Your task to perform on an android device: stop showing notifications on the lock screen Image 0: 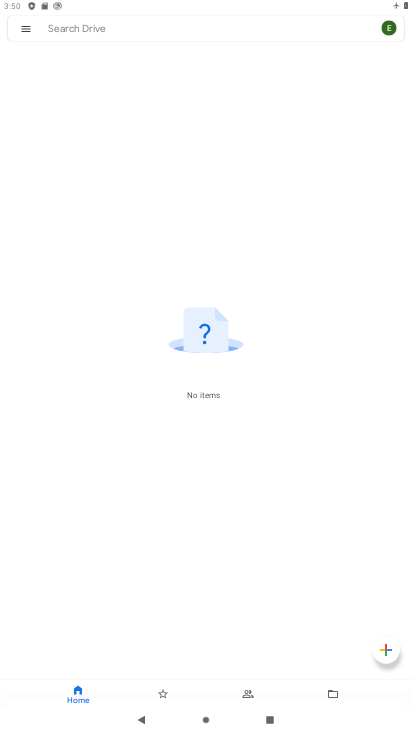
Step 0: press home button
Your task to perform on an android device: stop showing notifications on the lock screen Image 1: 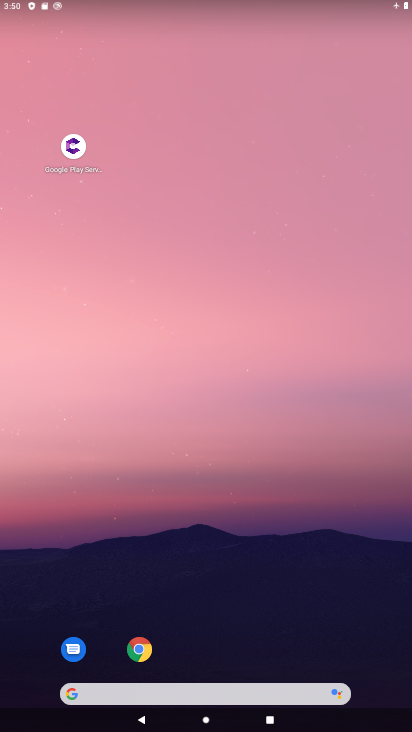
Step 1: drag from (274, 589) to (308, 8)
Your task to perform on an android device: stop showing notifications on the lock screen Image 2: 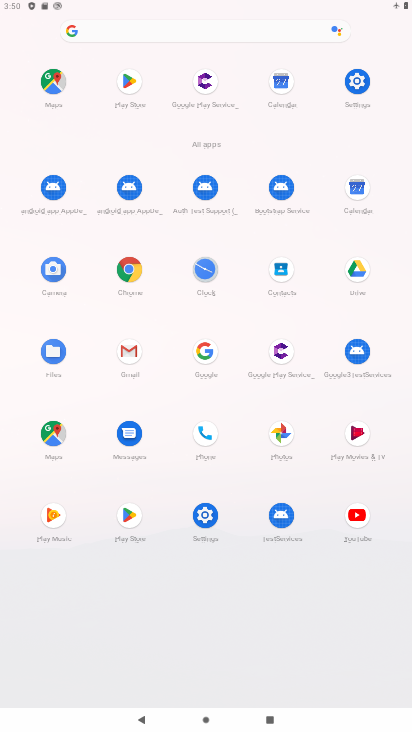
Step 2: click (362, 92)
Your task to perform on an android device: stop showing notifications on the lock screen Image 3: 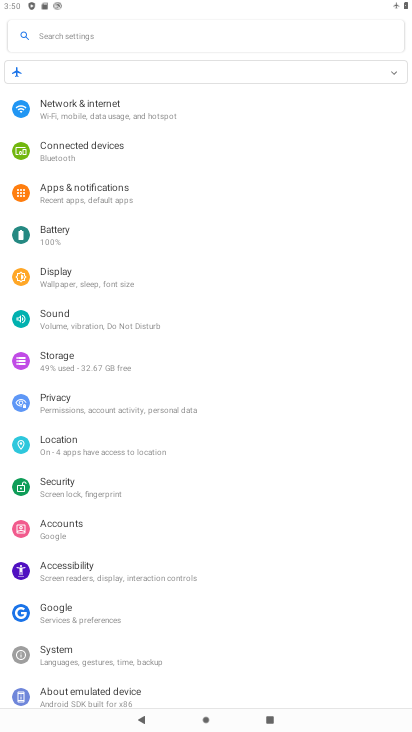
Step 3: click (139, 191)
Your task to perform on an android device: stop showing notifications on the lock screen Image 4: 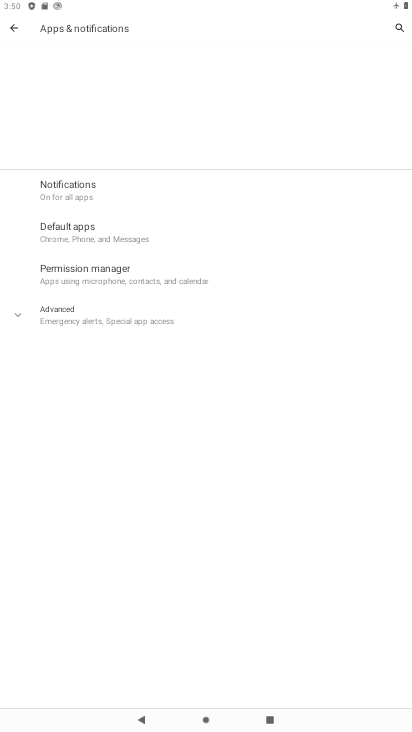
Step 4: click (135, 191)
Your task to perform on an android device: stop showing notifications on the lock screen Image 5: 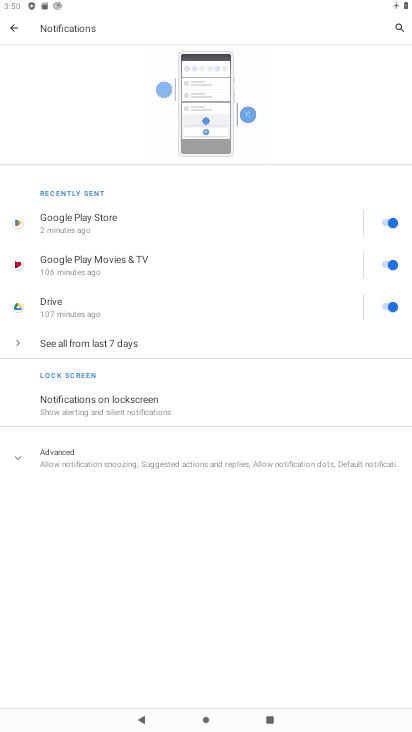
Step 5: click (151, 406)
Your task to perform on an android device: stop showing notifications on the lock screen Image 6: 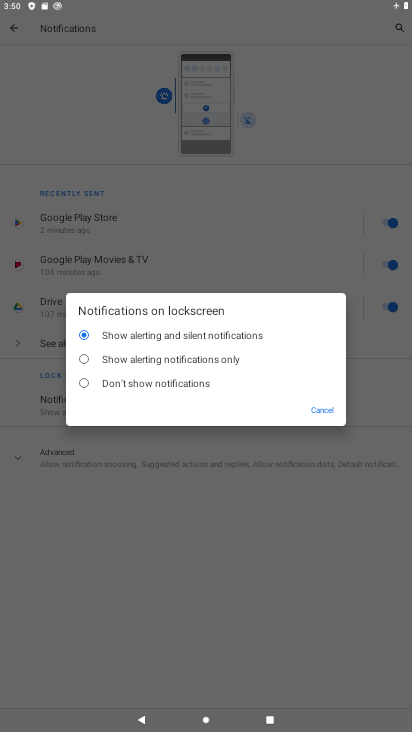
Step 6: click (197, 386)
Your task to perform on an android device: stop showing notifications on the lock screen Image 7: 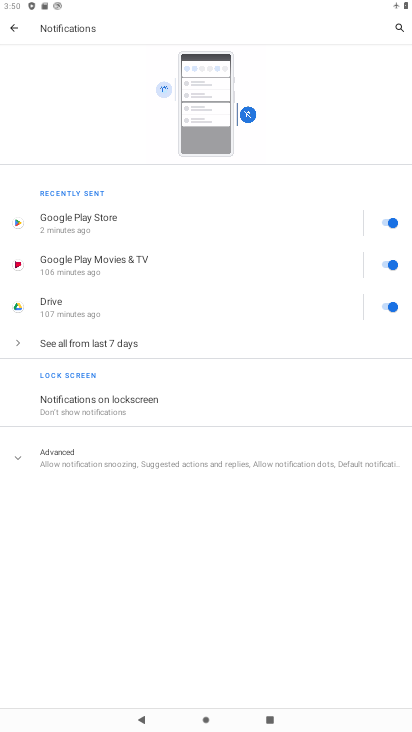
Step 7: task complete